Your task to perform on an android device: delete a single message in the gmail app Image 0: 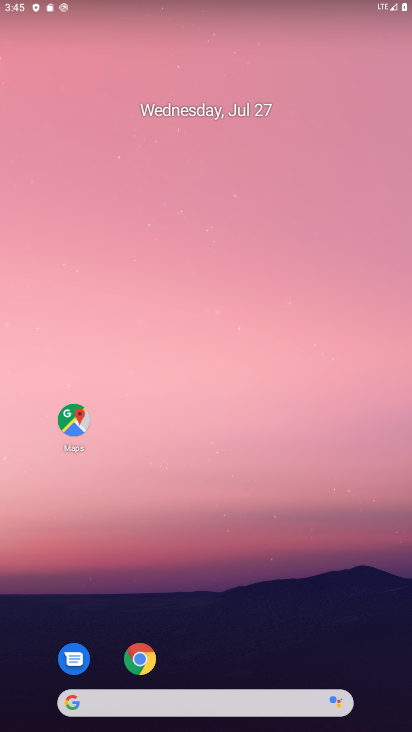
Step 0: drag from (265, 661) to (252, 0)
Your task to perform on an android device: delete a single message in the gmail app Image 1: 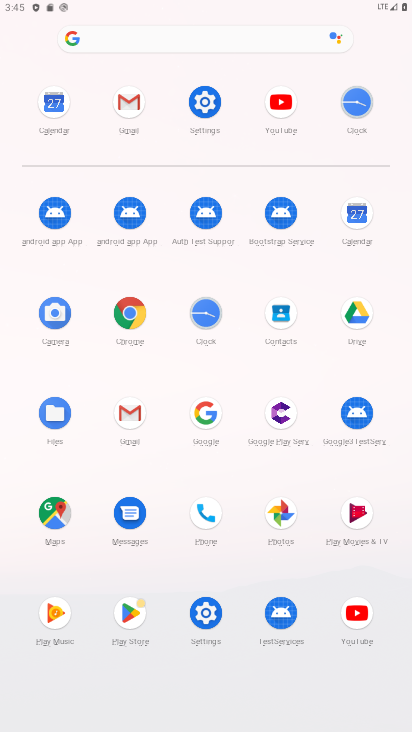
Step 1: click (127, 413)
Your task to perform on an android device: delete a single message in the gmail app Image 2: 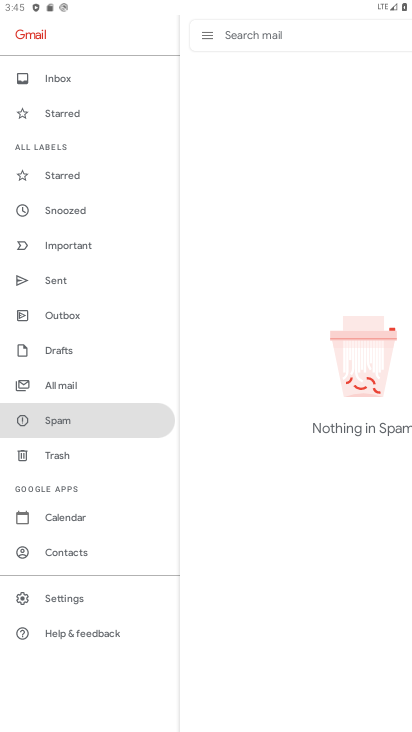
Step 2: click (68, 385)
Your task to perform on an android device: delete a single message in the gmail app Image 3: 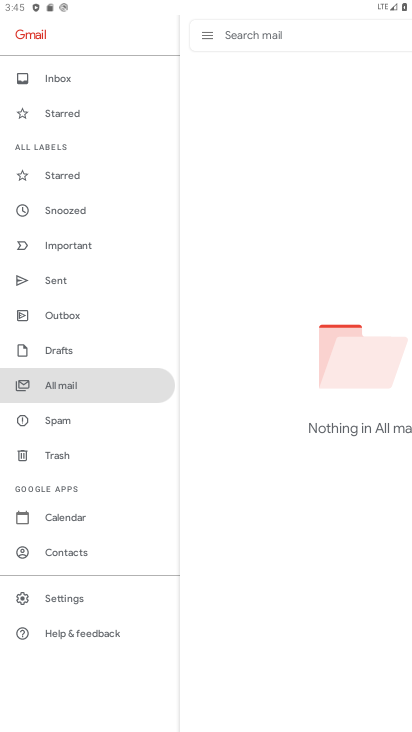
Step 3: task complete